Your task to perform on an android device: change notification settings in the gmail app Image 0: 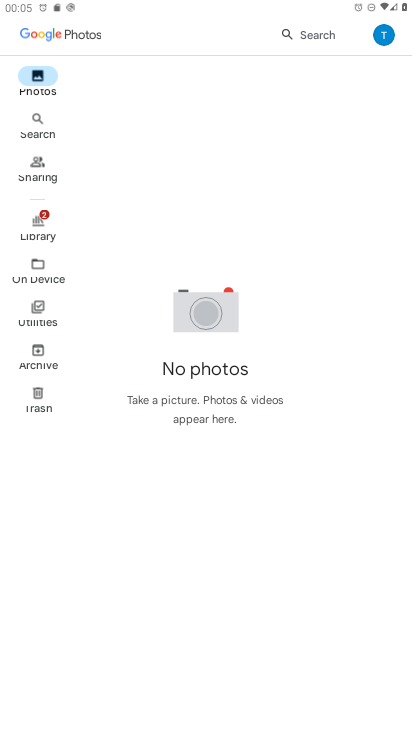
Step 0: press home button
Your task to perform on an android device: change notification settings in the gmail app Image 1: 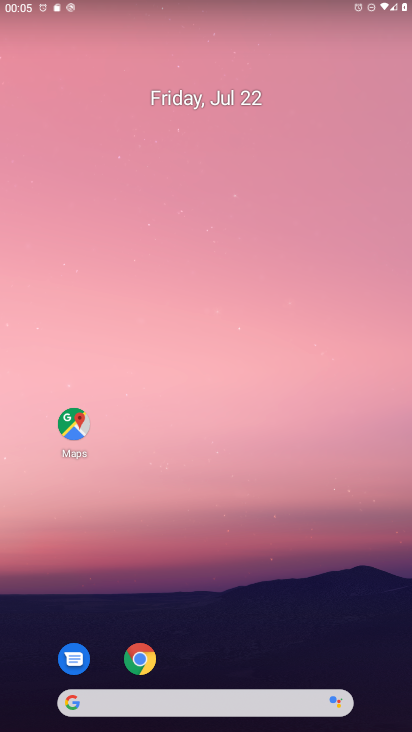
Step 1: drag from (219, 703) to (274, 334)
Your task to perform on an android device: change notification settings in the gmail app Image 2: 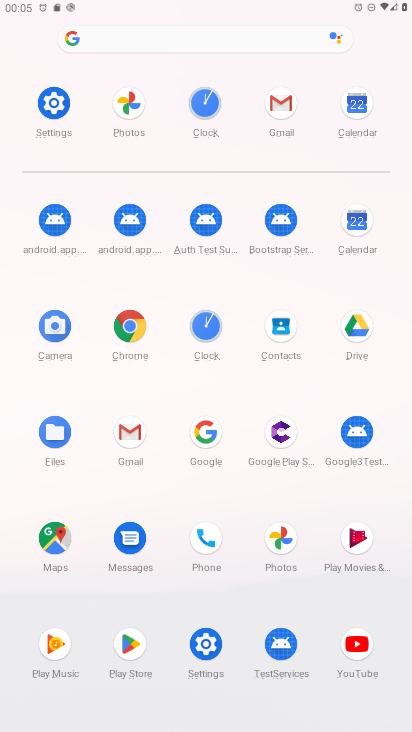
Step 2: click (278, 107)
Your task to perform on an android device: change notification settings in the gmail app Image 3: 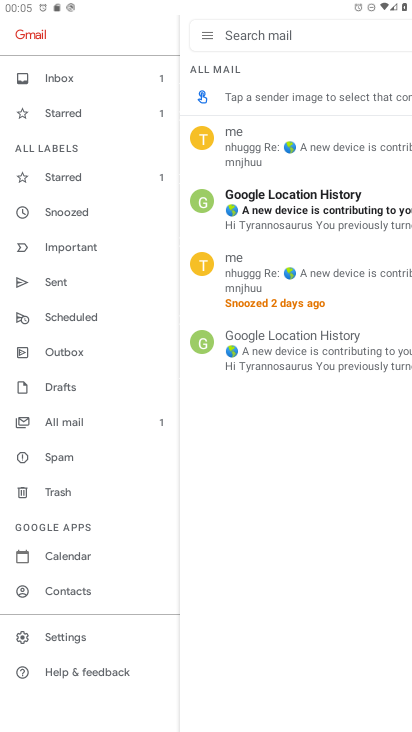
Step 3: click (64, 638)
Your task to perform on an android device: change notification settings in the gmail app Image 4: 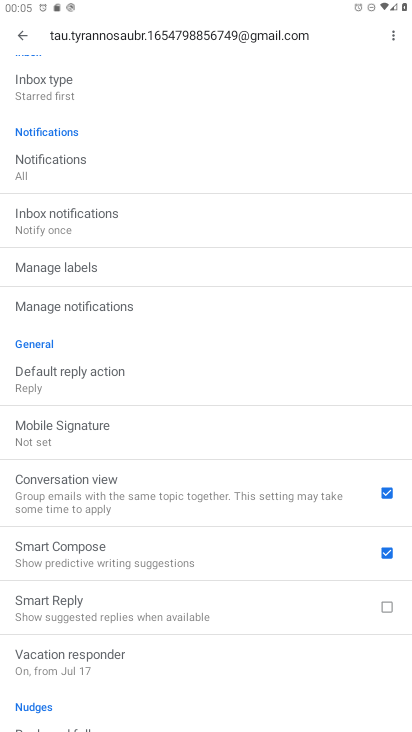
Step 4: click (69, 301)
Your task to perform on an android device: change notification settings in the gmail app Image 5: 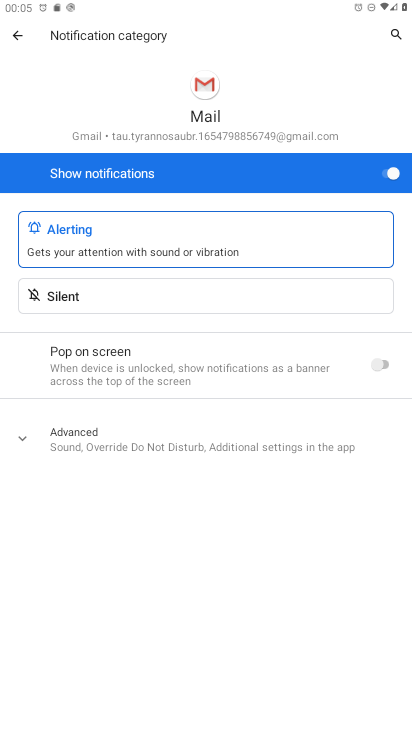
Step 5: click (396, 188)
Your task to perform on an android device: change notification settings in the gmail app Image 6: 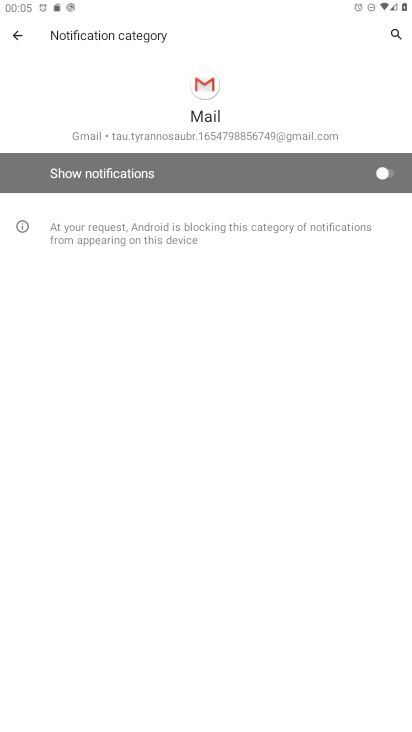
Step 6: task complete